Your task to perform on an android device: Do I have any events today? Image 0: 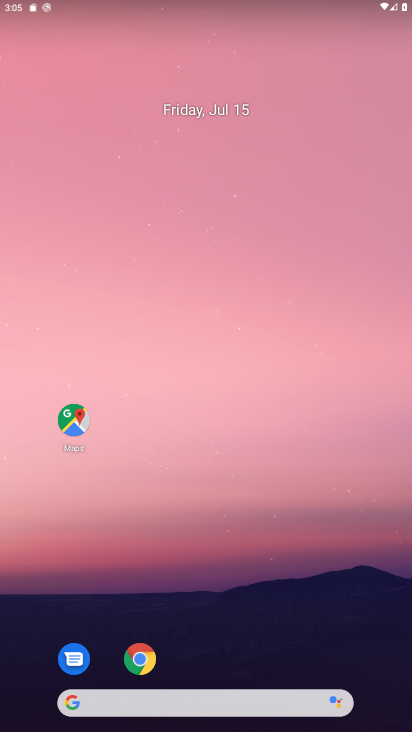
Step 0: drag from (313, 612) to (310, 186)
Your task to perform on an android device: Do I have any events today? Image 1: 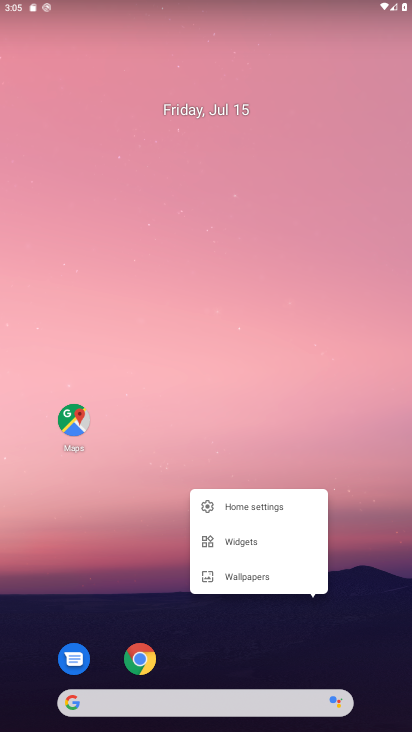
Step 1: click (371, 460)
Your task to perform on an android device: Do I have any events today? Image 2: 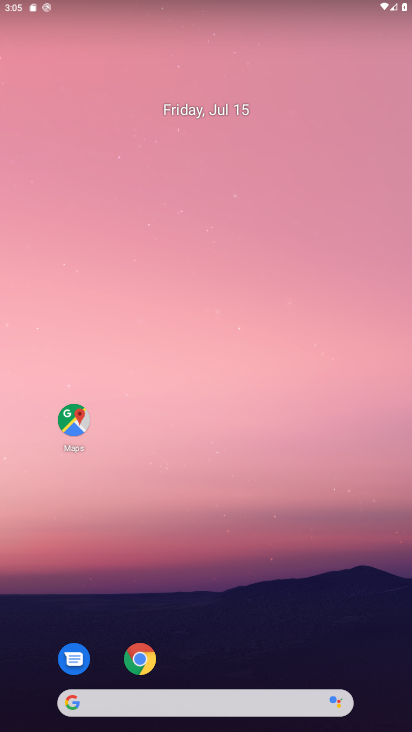
Step 2: drag from (369, 607) to (314, 308)
Your task to perform on an android device: Do I have any events today? Image 3: 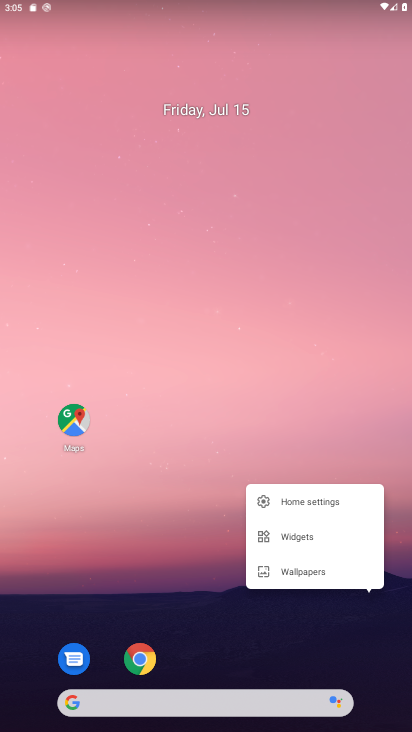
Step 3: click (314, 308)
Your task to perform on an android device: Do I have any events today? Image 4: 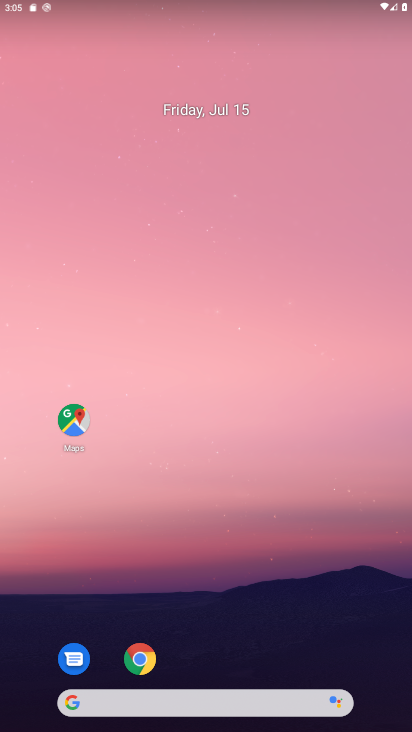
Step 4: drag from (282, 649) to (276, 26)
Your task to perform on an android device: Do I have any events today? Image 5: 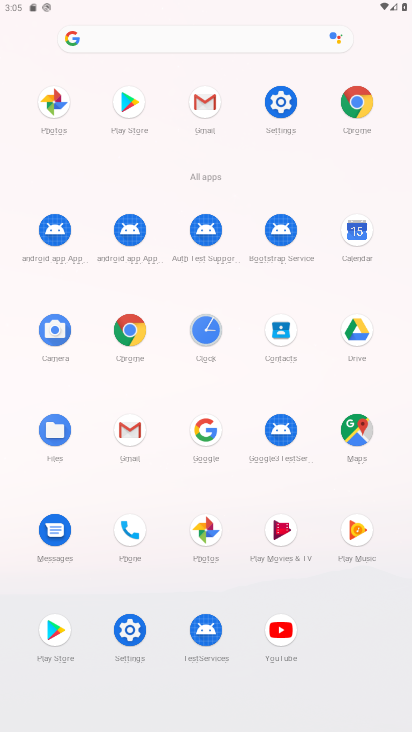
Step 5: click (361, 232)
Your task to perform on an android device: Do I have any events today? Image 6: 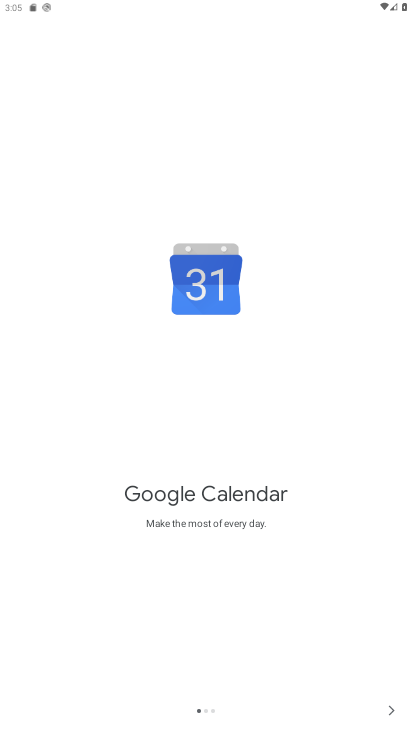
Step 6: click (392, 709)
Your task to perform on an android device: Do I have any events today? Image 7: 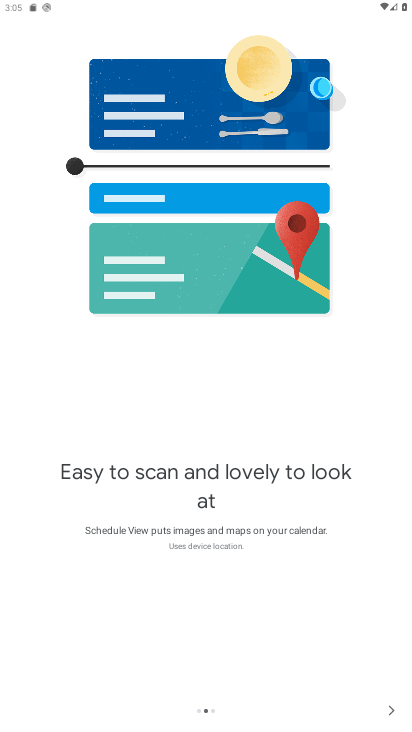
Step 7: click (392, 709)
Your task to perform on an android device: Do I have any events today? Image 8: 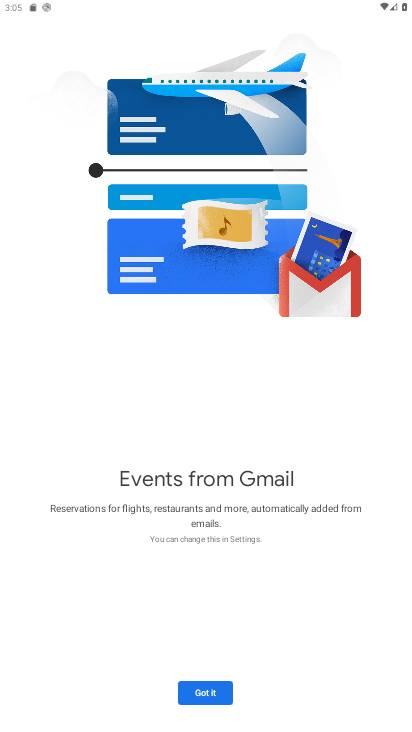
Step 8: click (214, 691)
Your task to perform on an android device: Do I have any events today? Image 9: 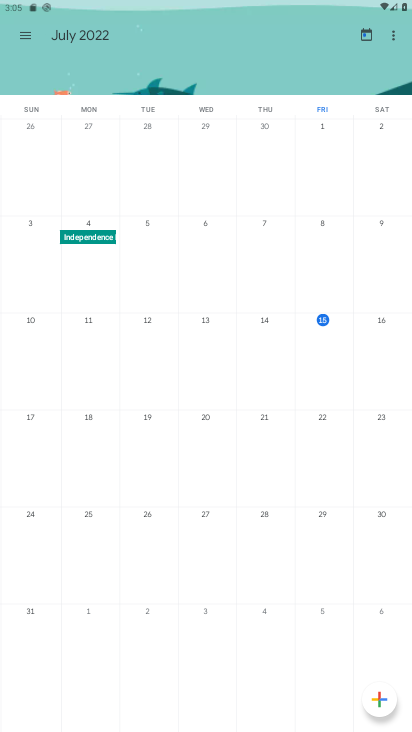
Step 9: click (26, 38)
Your task to perform on an android device: Do I have any events today? Image 10: 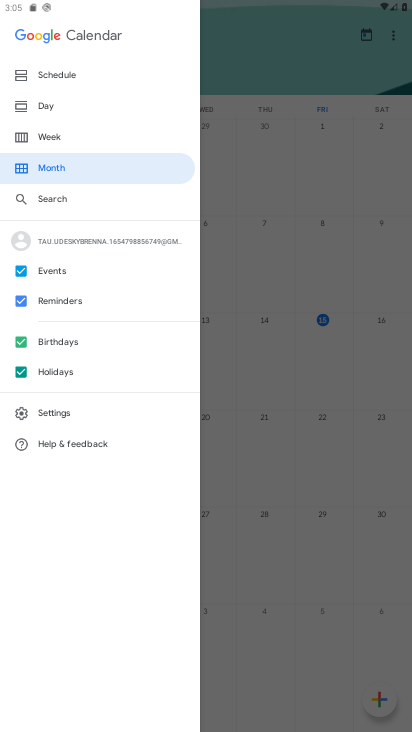
Step 10: click (54, 106)
Your task to perform on an android device: Do I have any events today? Image 11: 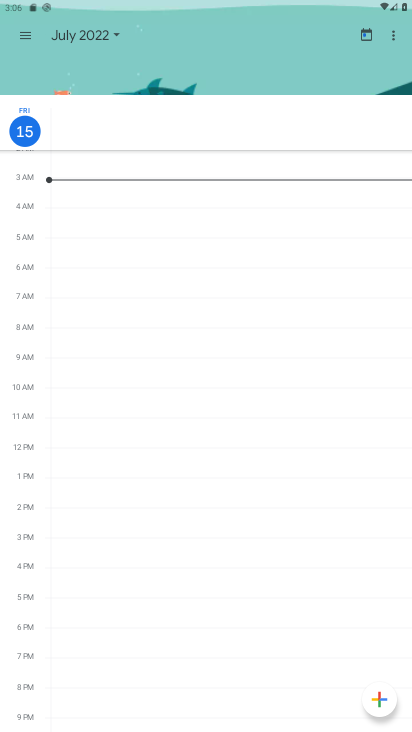
Step 11: task complete